Your task to perform on an android device: change notification settings in the gmail app Image 0: 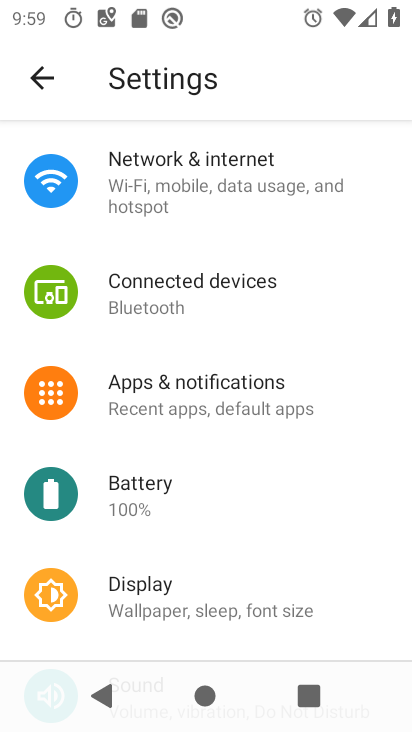
Step 0: press home button
Your task to perform on an android device: change notification settings in the gmail app Image 1: 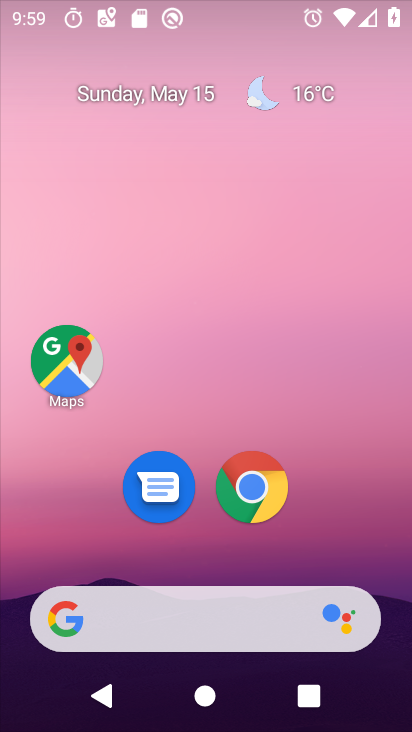
Step 1: drag from (367, 441) to (353, 144)
Your task to perform on an android device: change notification settings in the gmail app Image 2: 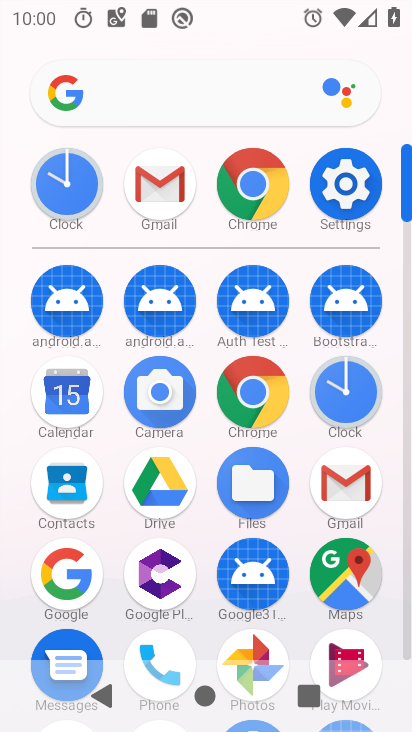
Step 2: click (357, 483)
Your task to perform on an android device: change notification settings in the gmail app Image 3: 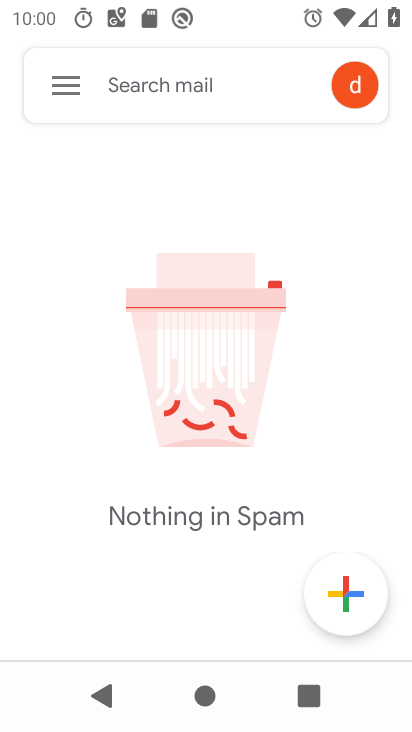
Step 3: click (59, 54)
Your task to perform on an android device: change notification settings in the gmail app Image 4: 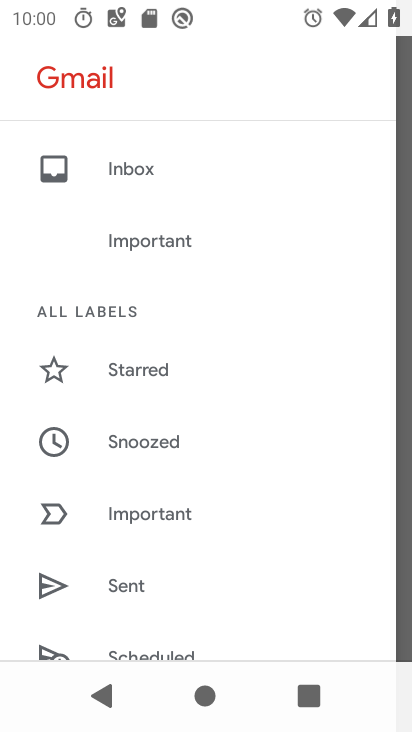
Step 4: drag from (231, 545) to (279, 231)
Your task to perform on an android device: change notification settings in the gmail app Image 5: 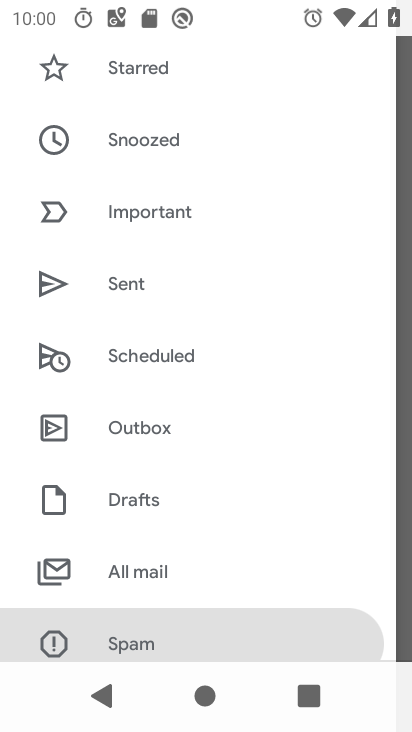
Step 5: drag from (207, 506) to (268, 211)
Your task to perform on an android device: change notification settings in the gmail app Image 6: 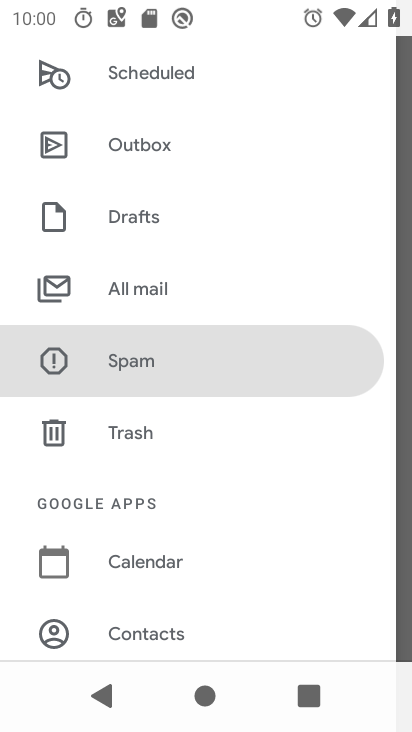
Step 6: drag from (296, 628) to (332, 200)
Your task to perform on an android device: change notification settings in the gmail app Image 7: 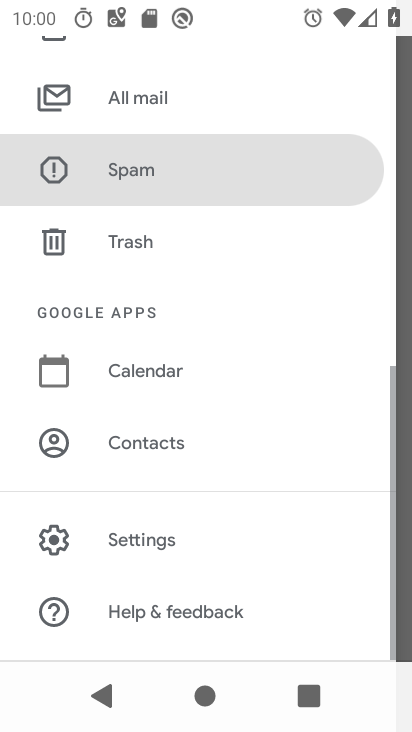
Step 7: click (190, 536)
Your task to perform on an android device: change notification settings in the gmail app Image 8: 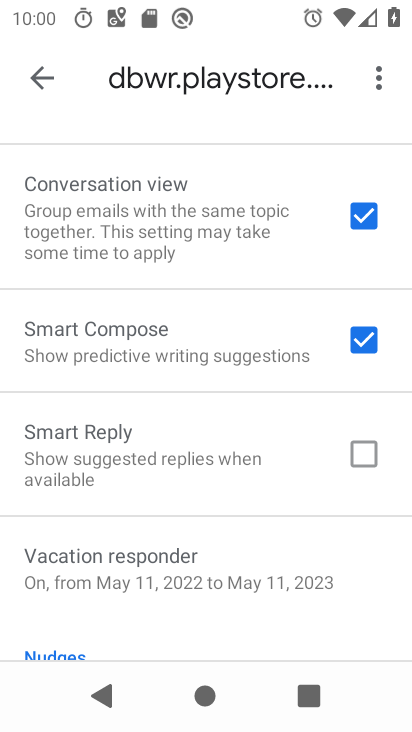
Step 8: drag from (236, 587) to (238, 278)
Your task to perform on an android device: change notification settings in the gmail app Image 9: 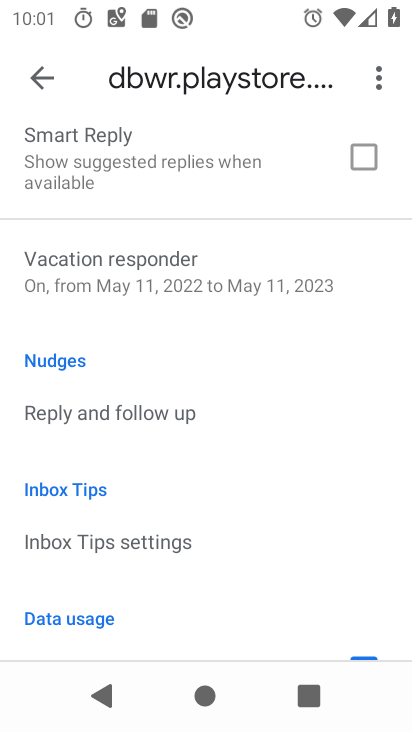
Step 9: drag from (243, 553) to (257, 256)
Your task to perform on an android device: change notification settings in the gmail app Image 10: 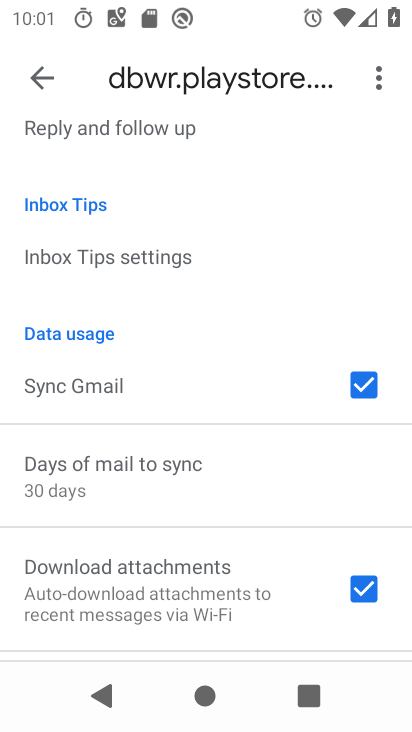
Step 10: drag from (271, 579) to (257, 301)
Your task to perform on an android device: change notification settings in the gmail app Image 11: 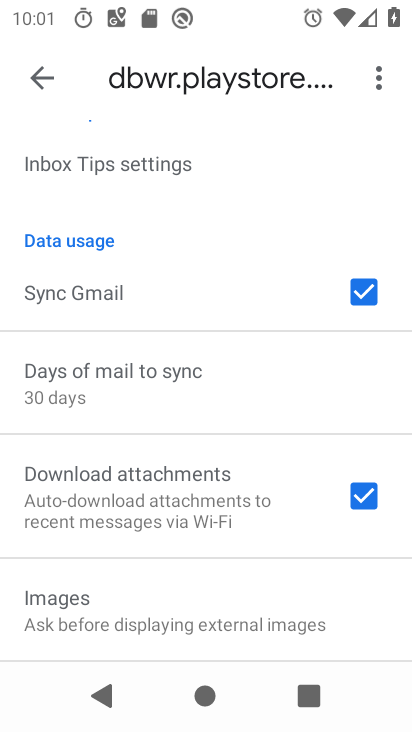
Step 11: drag from (238, 589) to (242, 251)
Your task to perform on an android device: change notification settings in the gmail app Image 12: 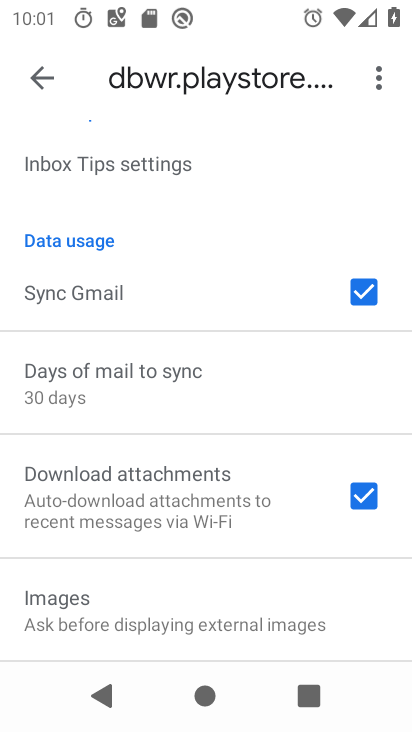
Step 12: drag from (210, 184) to (138, 603)
Your task to perform on an android device: change notification settings in the gmail app Image 13: 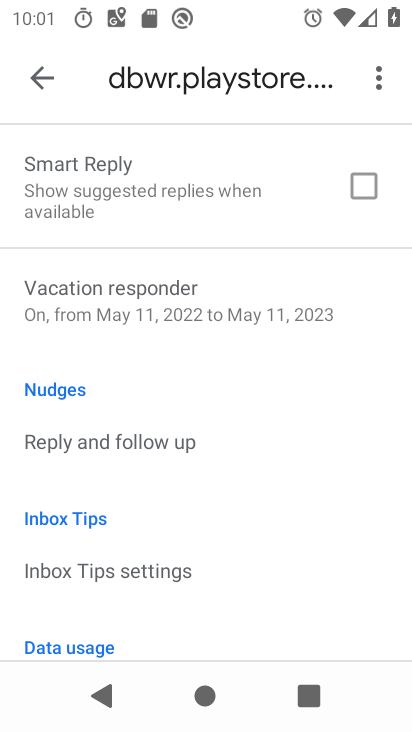
Step 13: drag from (220, 233) to (227, 540)
Your task to perform on an android device: change notification settings in the gmail app Image 14: 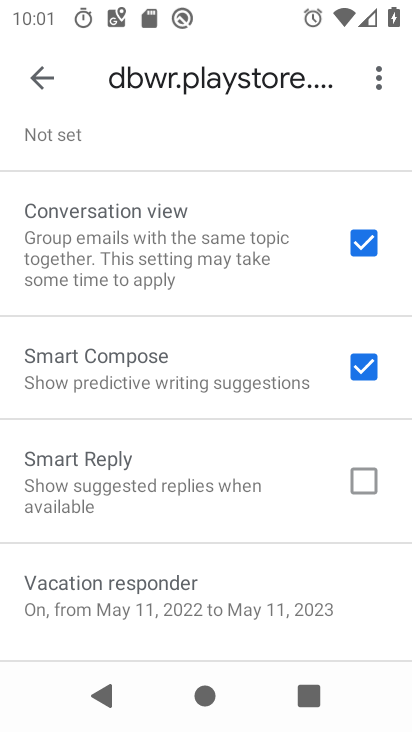
Step 14: drag from (225, 204) to (225, 552)
Your task to perform on an android device: change notification settings in the gmail app Image 15: 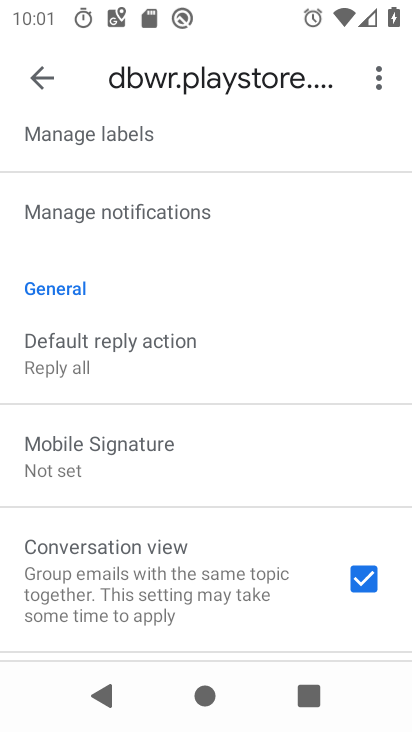
Step 15: drag from (255, 238) to (232, 570)
Your task to perform on an android device: change notification settings in the gmail app Image 16: 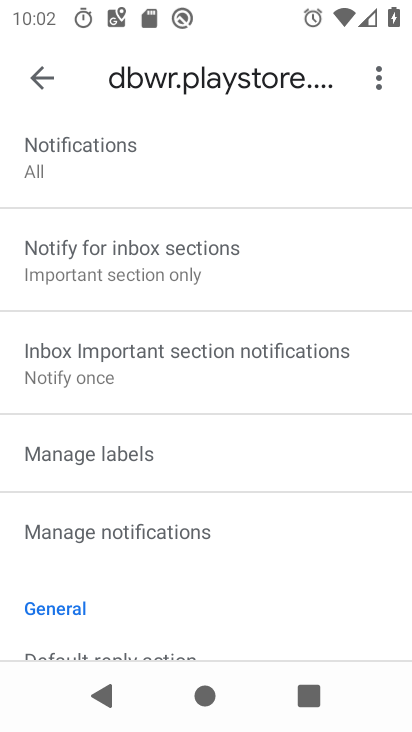
Step 16: click (122, 145)
Your task to perform on an android device: change notification settings in the gmail app Image 17: 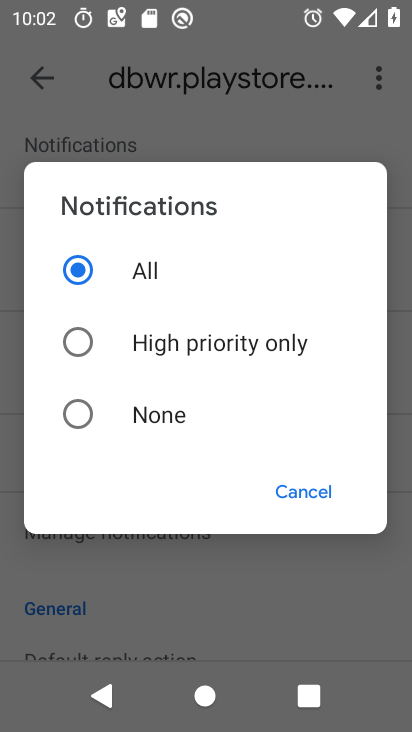
Step 17: click (73, 426)
Your task to perform on an android device: change notification settings in the gmail app Image 18: 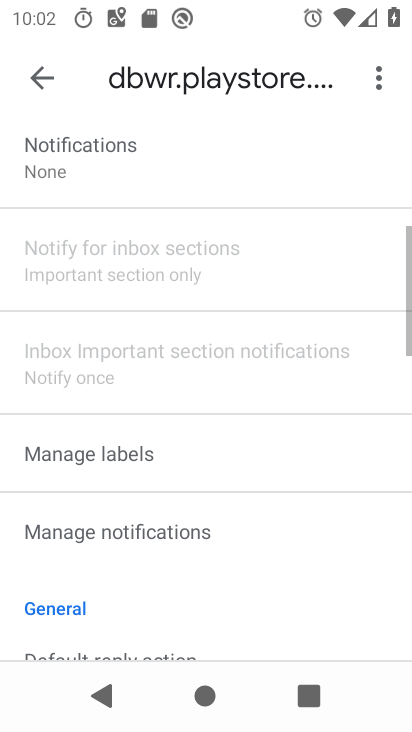
Step 18: task complete